Your task to perform on an android device: open app "Google Sheets" Image 0: 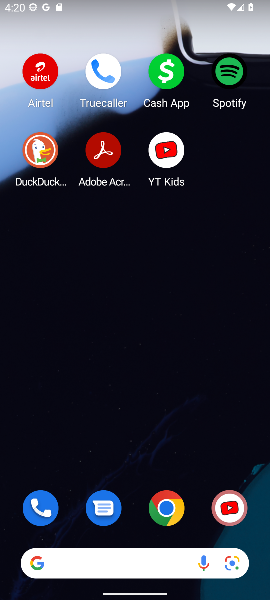
Step 0: drag from (214, 437) to (180, 56)
Your task to perform on an android device: open app "Google Sheets" Image 1: 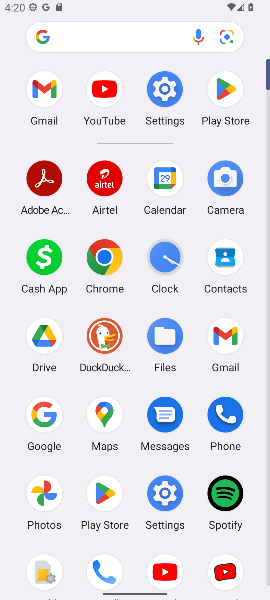
Step 1: click (226, 88)
Your task to perform on an android device: open app "Google Sheets" Image 2: 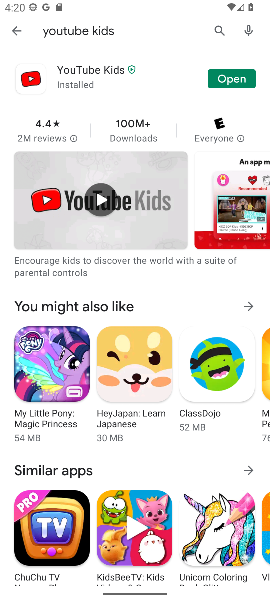
Step 2: press back button
Your task to perform on an android device: open app "Google Sheets" Image 3: 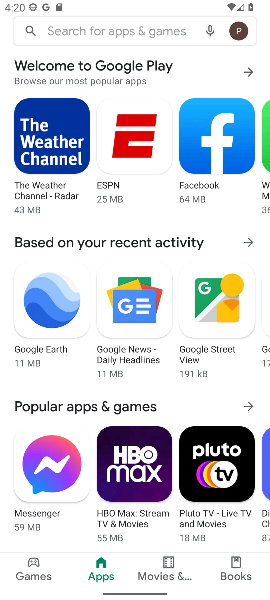
Step 3: click (102, 28)
Your task to perform on an android device: open app "Google Sheets" Image 4: 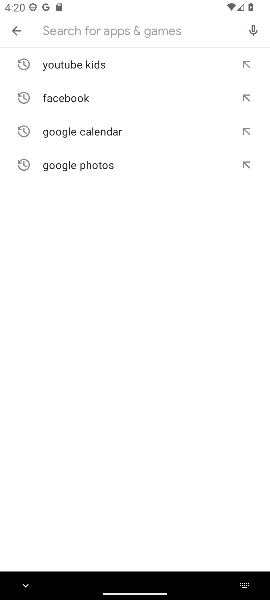
Step 4: type "Google Sheets"
Your task to perform on an android device: open app "Google Sheets" Image 5: 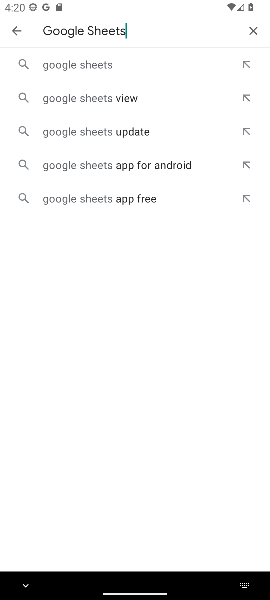
Step 5: click (93, 59)
Your task to perform on an android device: open app "Google Sheets" Image 6: 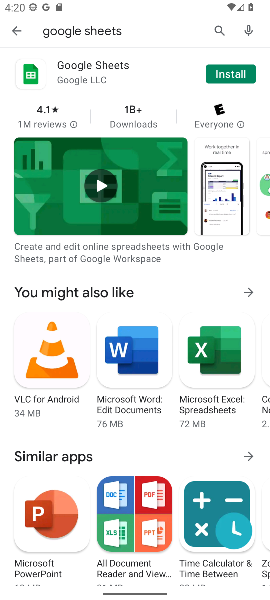
Step 6: task complete